Your task to perform on an android device: visit the assistant section in the google photos Image 0: 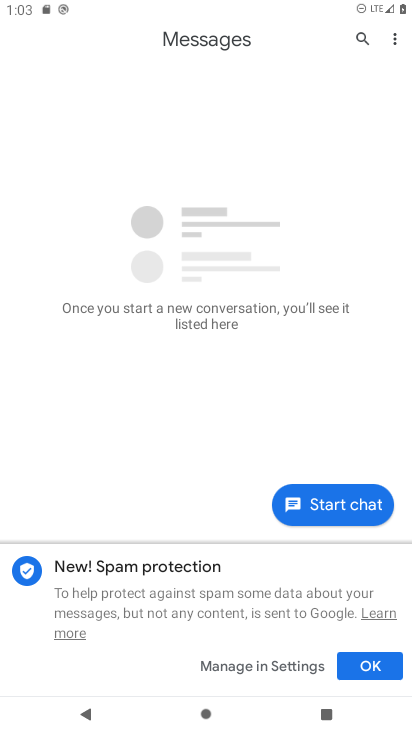
Step 0: press home button
Your task to perform on an android device: visit the assistant section in the google photos Image 1: 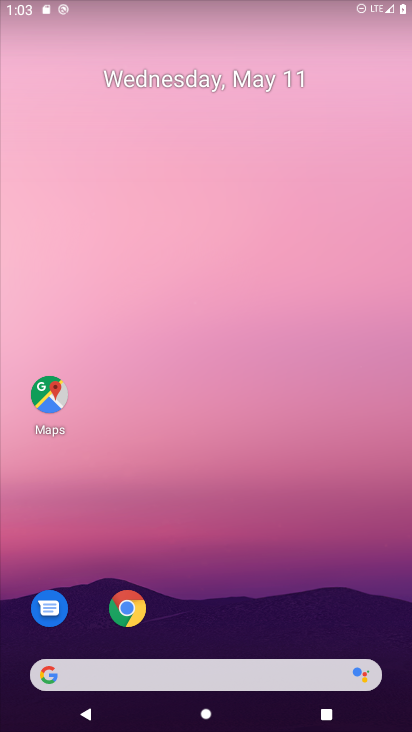
Step 1: drag from (181, 582) to (165, 78)
Your task to perform on an android device: visit the assistant section in the google photos Image 2: 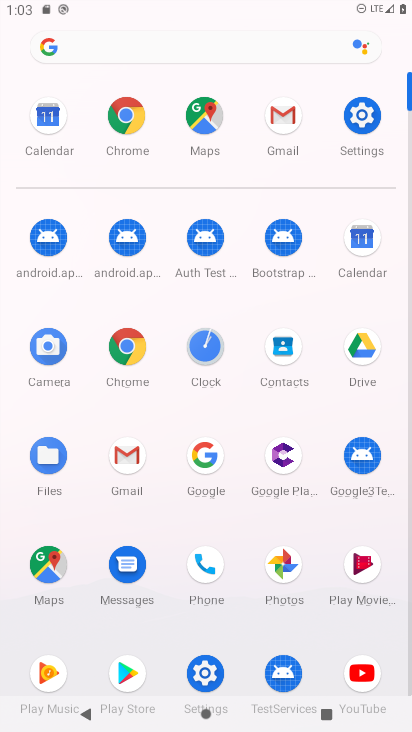
Step 2: click (281, 569)
Your task to perform on an android device: visit the assistant section in the google photos Image 3: 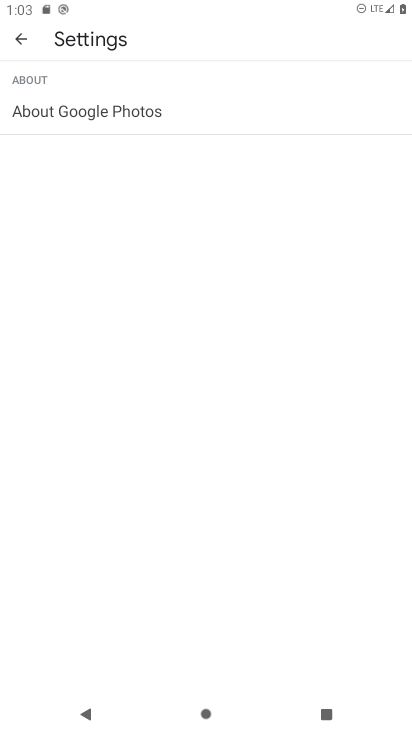
Step 3: click (17, 37)
Your task to perform on an android device: visit the assistant section in the google photos Image 4: 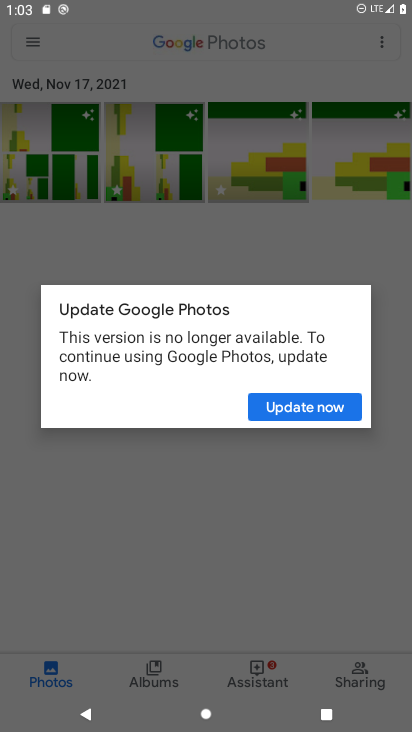
Step 4: click (323, 407)
Your task to perform on an android device: visit the assistant section in the google photos Image 5: 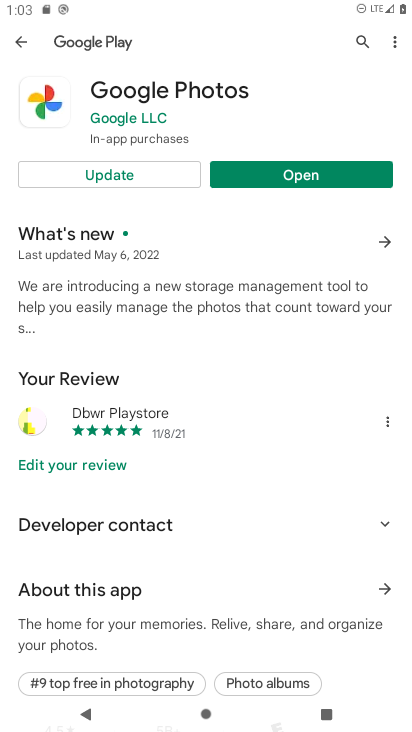
Step 5: click (295, 169)
Your task to perform on an android device: visit the assistant section in the google photos Image 6: 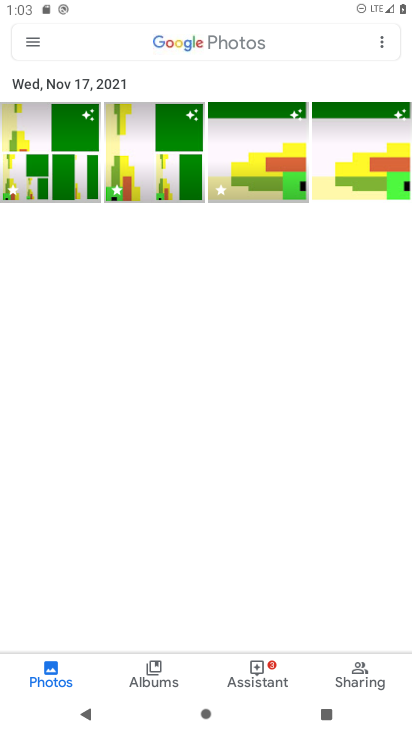
Step 6: click (242, 674)
Your task to perform on an android device: visit the assistant section in the google photos Image 7: 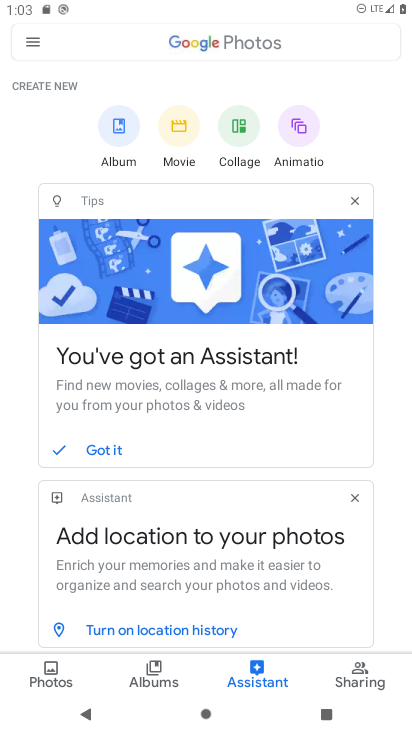
Step 7: task complete